Your task to perform on an android device: toggle show notifications on the lock screen Image 0: 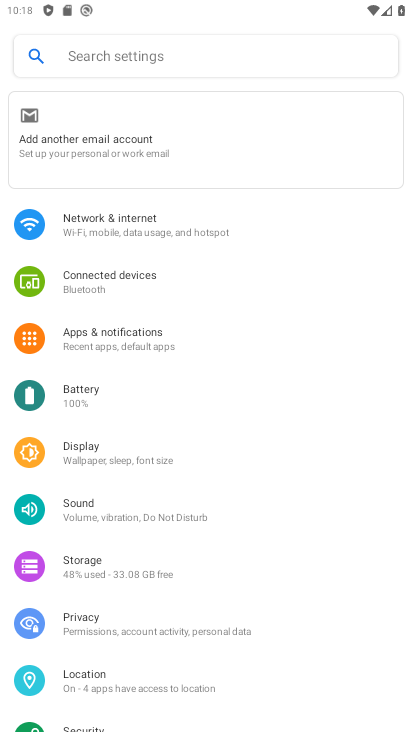
Step 0: click (117, 347)
Your task to perform on an android device: toggle show notifications on the lock screen Image 1: 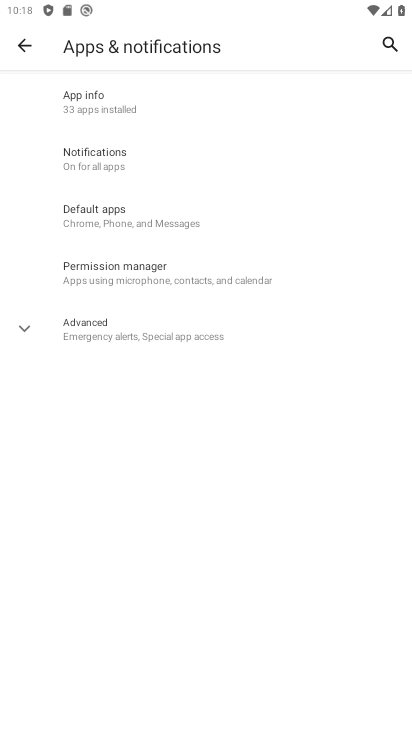
Step 1: click (124, 159)
Your task to perform on an android device: toggle show notifications on the lock screen Image 2: 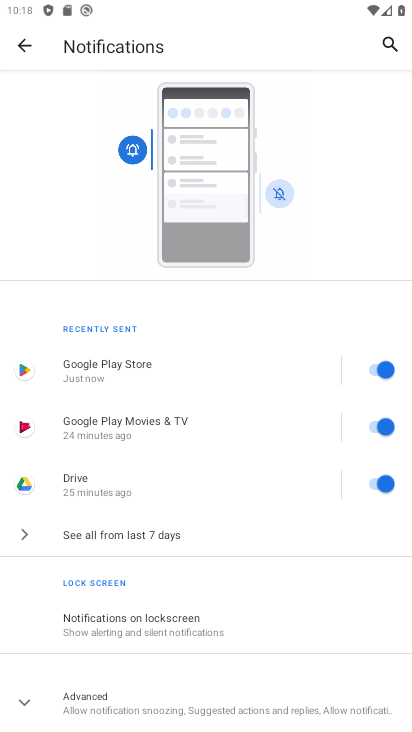
Step 2: click (183, 631)
Your task to perform on an android device: toggle show notifications on the lock screen Image 3: 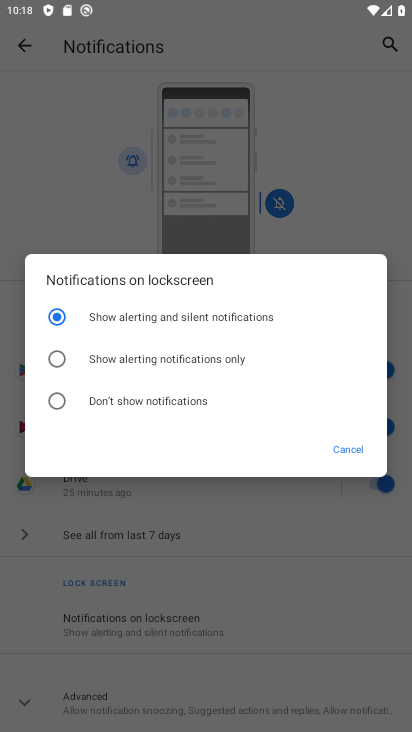
Step 3: click (203, 375)
Your task to perform on an android device: toggle show notifications on the lock screen Image 4: 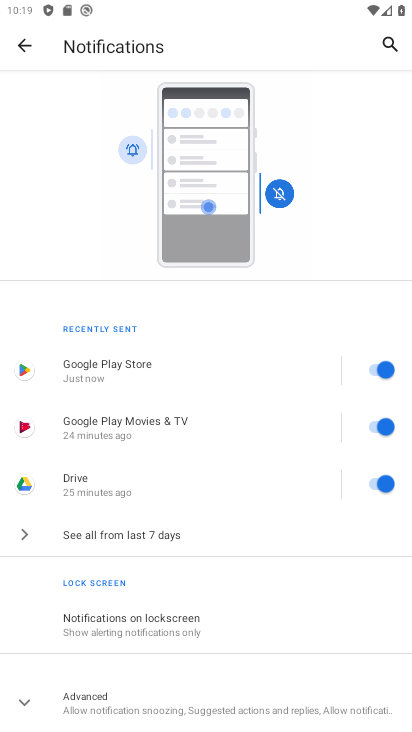
Step 4: task complete